Your task to perform on an android device: Do I have any events today? Image 0: 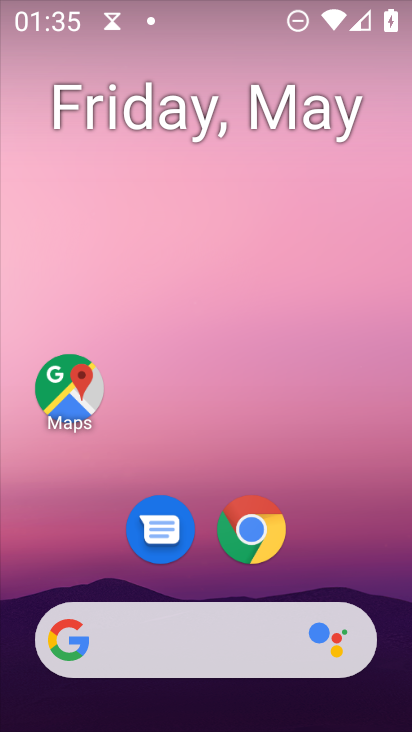
Step 0: drag from (298, 417) to (276, 201)
Your task to perform on an android device: Do I have any events today? Image 1: 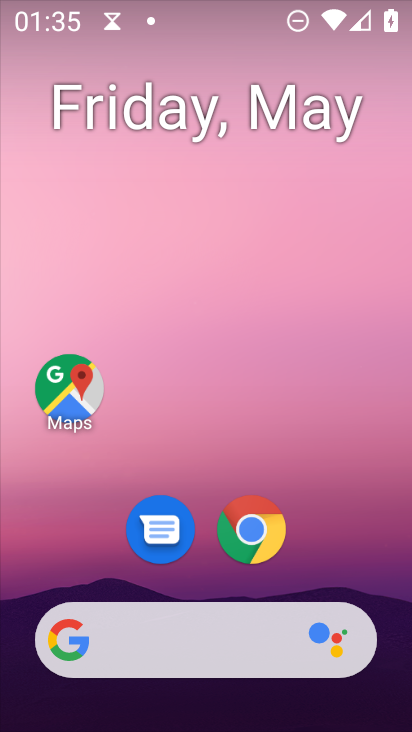
Step 1: drag from (177, 573) to (169, 189)
Your task to perform on an android device: Do I have any events today? Image 2: 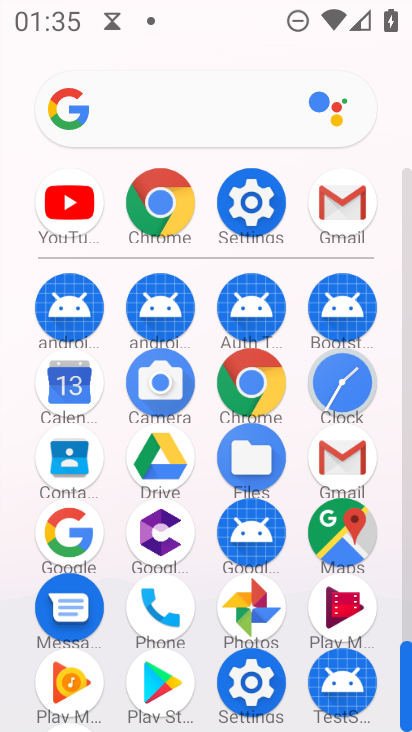
Step 2: click (64, 369)
Your task to perform on an android device: Do I have any events today? Image 3: 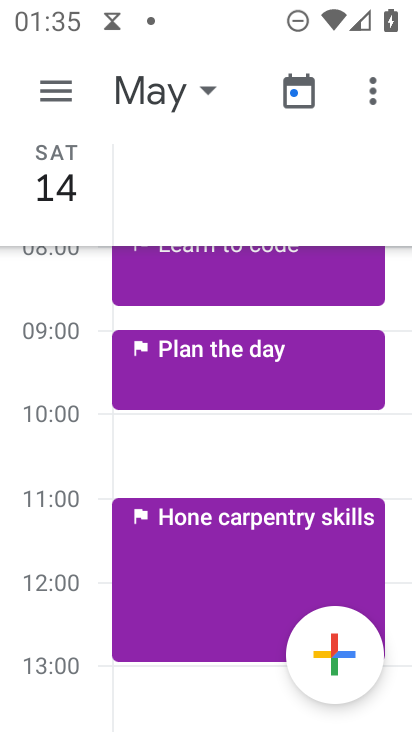
Step 3: click (47, 79)
Your task to perform on an android device: Do I have any events today? Image 4: 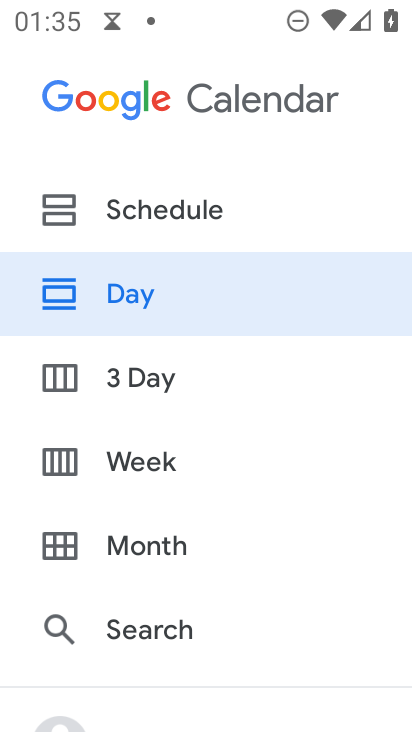
Step 4: click (115, 538)
Your task to perform on an android device: Do I have any events today? Image 5: 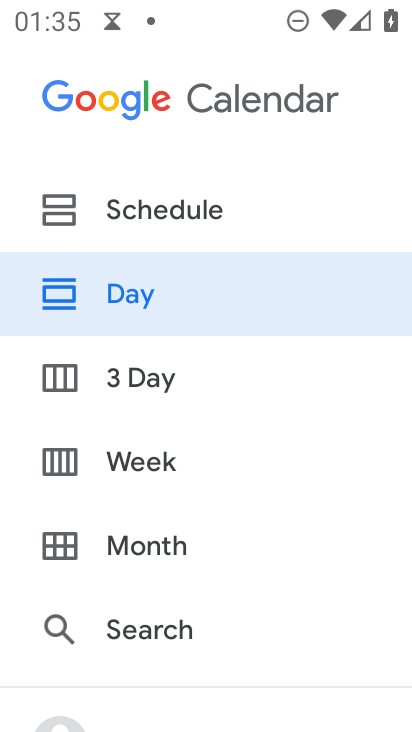
Step 5: drag from (131, 473) to (131, 554)
Your task to perform on an android device: Do I have any events today? Image 6: 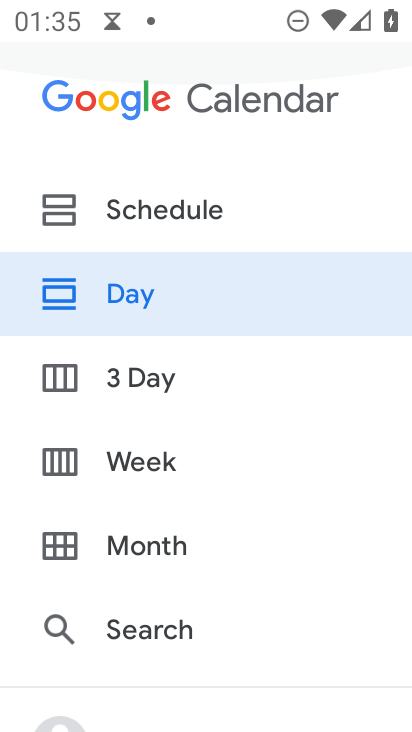
Step 6: click (131, 550)
Your task to perform on an android device: Do I have any events today? Image 7: 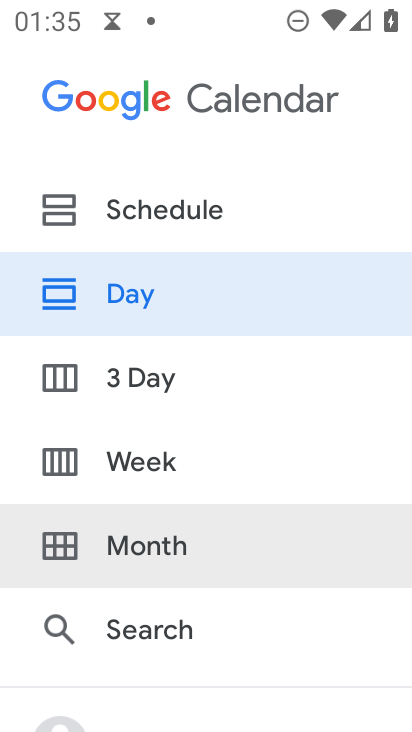
Step 7: click (131, 550)
Your task to perform on an android device: Do I have any events today? Image 8: 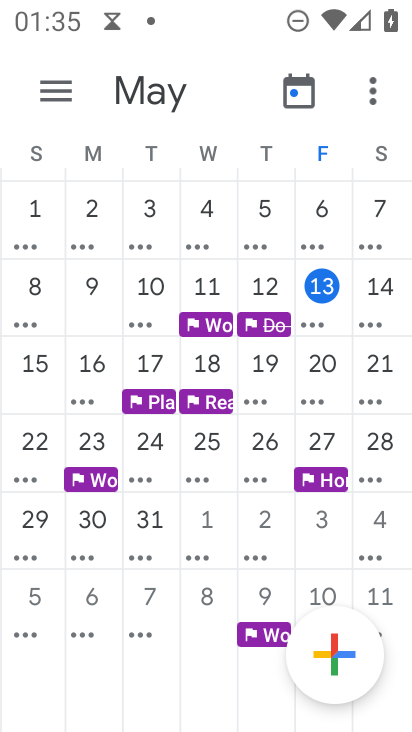
Step 8: click (331, 283)
Your task to perform on an android device: Do I have any events today? Image 9: 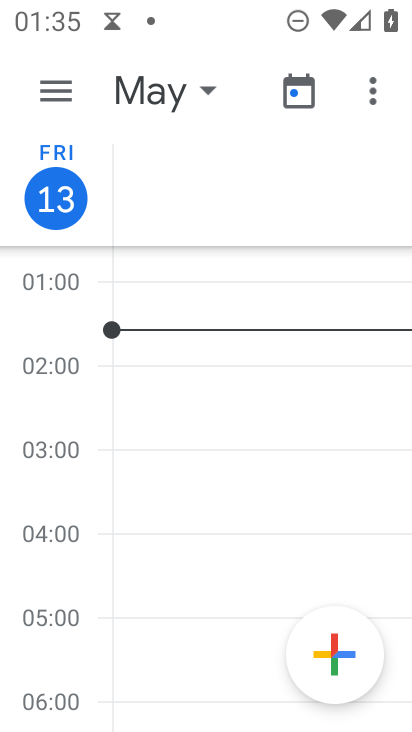
Step 9: click (42, 99)
Your task to perform on an android device: Do I have any events today? Image 10: 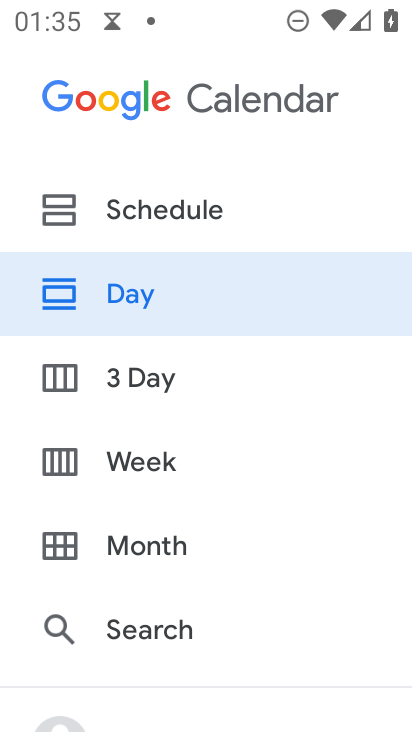
Step 10: task complete